Your task to perform on an android device: check android version Image 0: 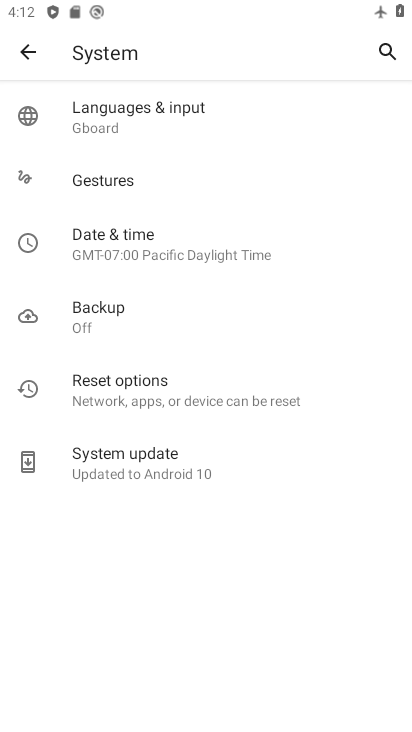
Step 0: press home button
Your task to perform on an android device: check android version Image 1: 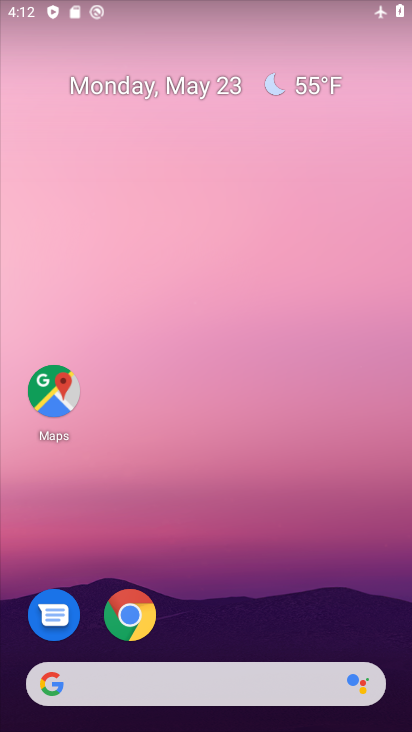
Step 1: drag from (383, 591) to (379, 220)
Your task to perform on an android device: check android version Image 2: 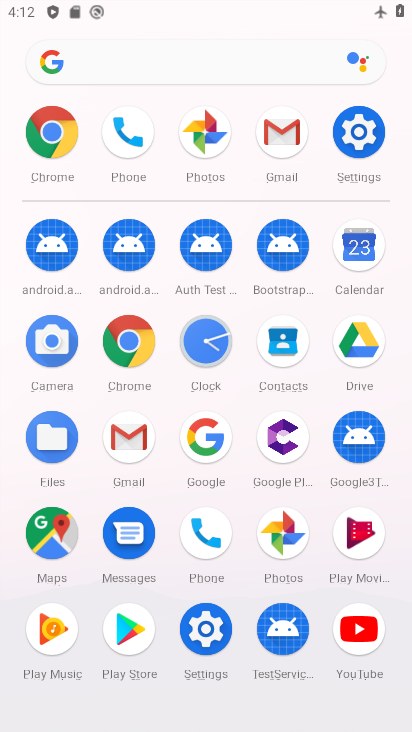
Step 2: click (210, 634)
Your task to perform on an android device: check android version Image 3: 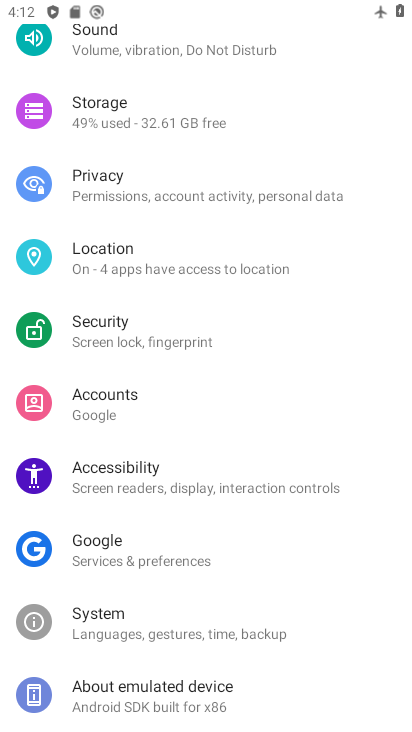
Step 3: drag from (356, 413) to (347, 495)
Your task to perform on an android device: check android version Image 4: 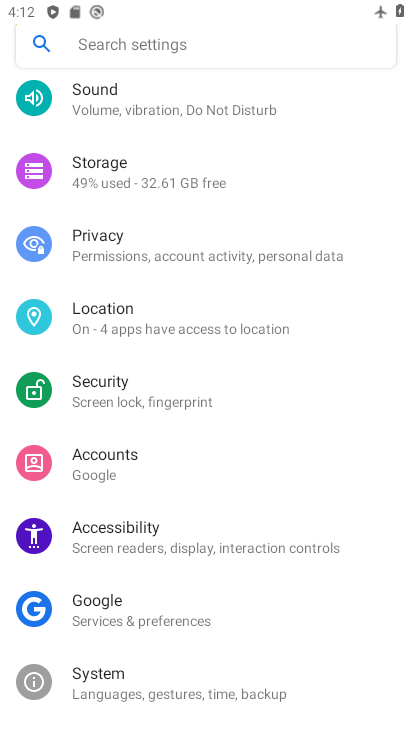
Step 4: drag from (364, 377) to (362, 490)
Your task to perform on an android device: check android version Image 5: 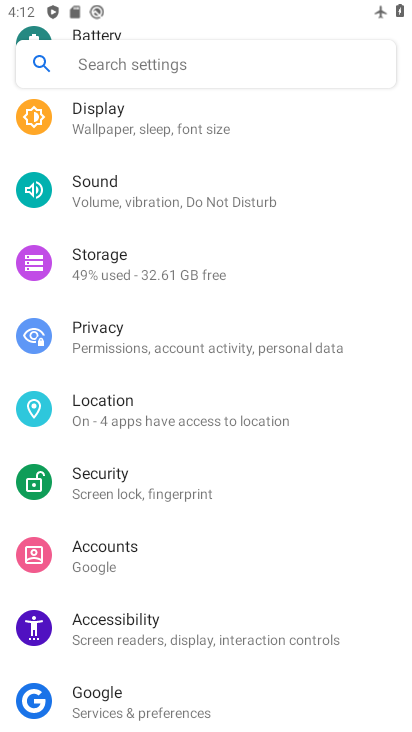
Step 5: drag from (323, 322) to (319, 417)
Your task to perform on an android device: check android version Image 6: 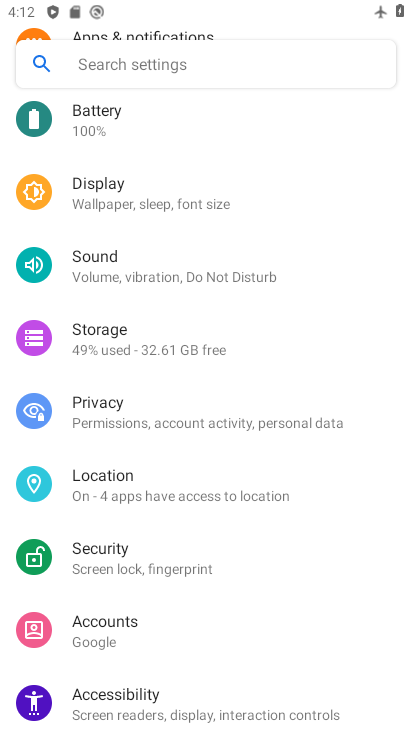
Step 6: drag from (331, 309) to (323, 424)
Your task to perform on an android device: check android version Image 7: 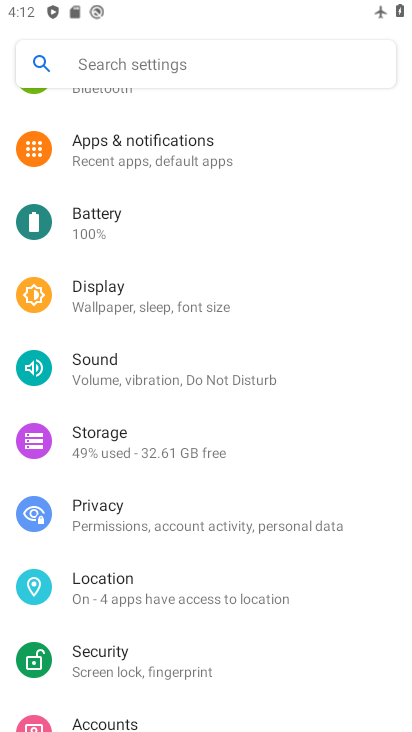
Step 7: drag from (326, 291) to (325, 398)
Your task to perform on an android device: check android version Image 8: 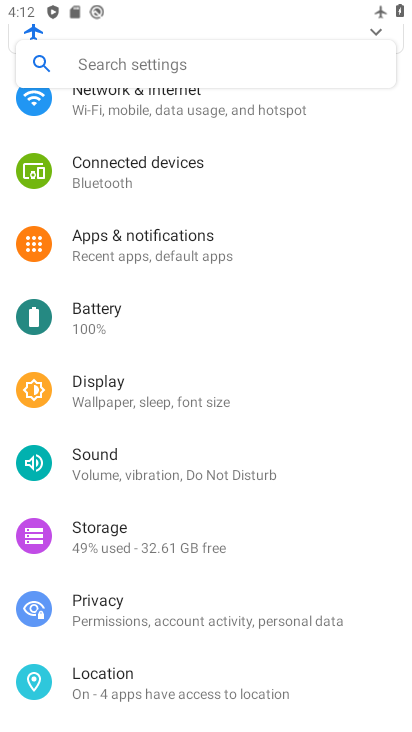
Step 8: drag from (341, 266) to (330, 391)
Your task to perform on an android device: check android version Image 9: 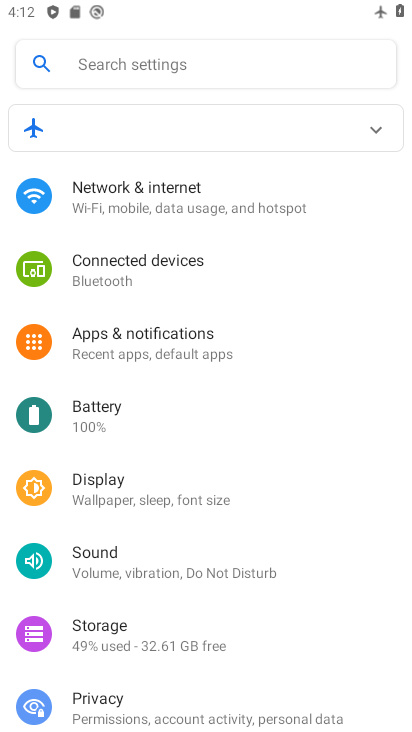
Step 9: drag from (333, 482) to (333, 409)
Your task to perform on an android device: check android version Image 10: 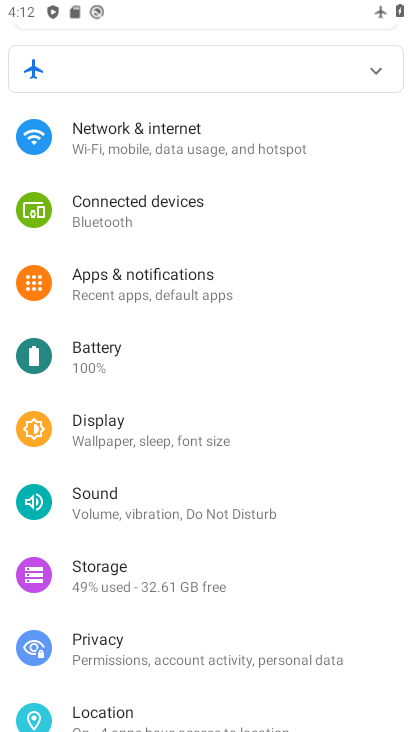
Step 10: drag from (350, 547) to (345, 460)
Your task to perform on an android device: check android version Image 11: 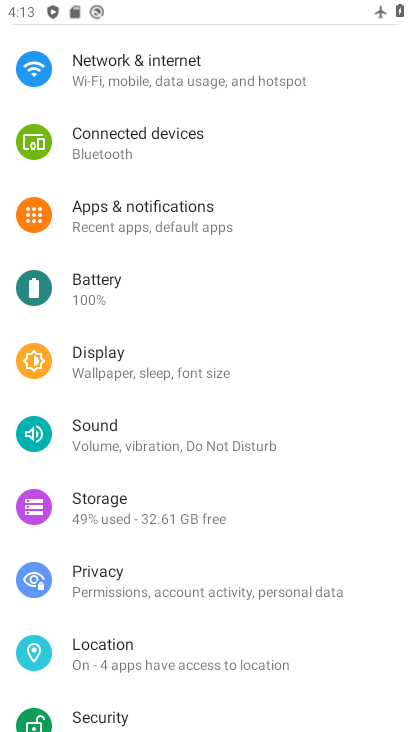
Step 11: drag from (341, 548) to (339, 460)
Your task to perform on an android device: check android version Image 12: 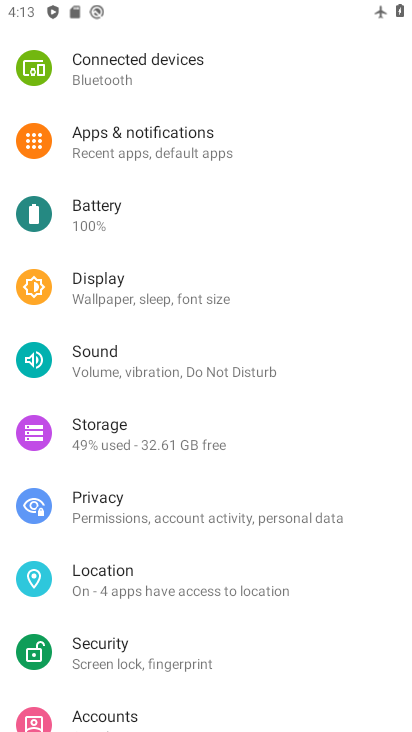
Step 12: drag from (354, 589) to (355, 472)
Your task to perform on an android device: check android version Image 13: 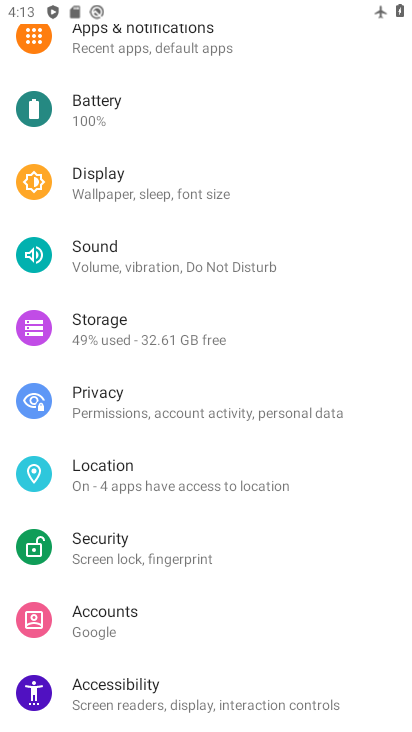
Step 13: drag from (331, 615) to (339, 489)
Your task to perform on an android device: check android version Image 14: 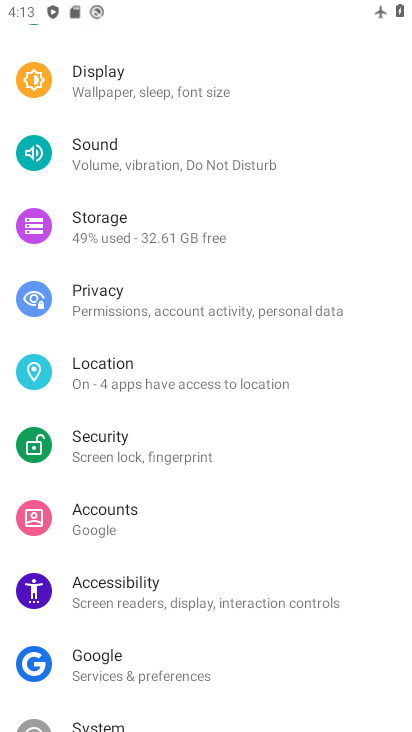
Step 14: drag from (315, 640) to (316, 540)
Your task to perform on an android device: check android version Image 15: 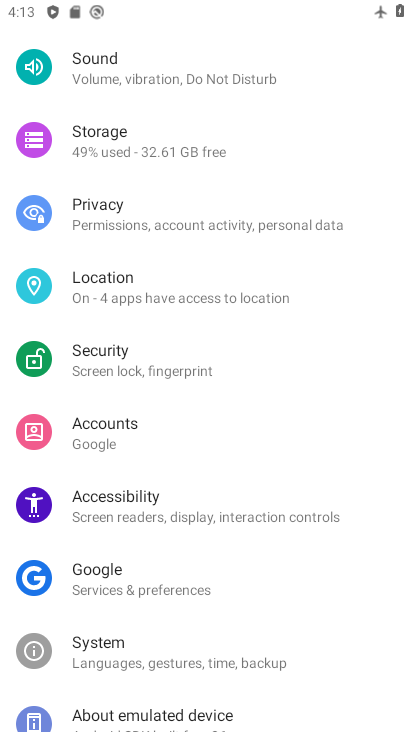
Step 15: click (264, 661)
Your task to perform on an android device: check android version Image 16: 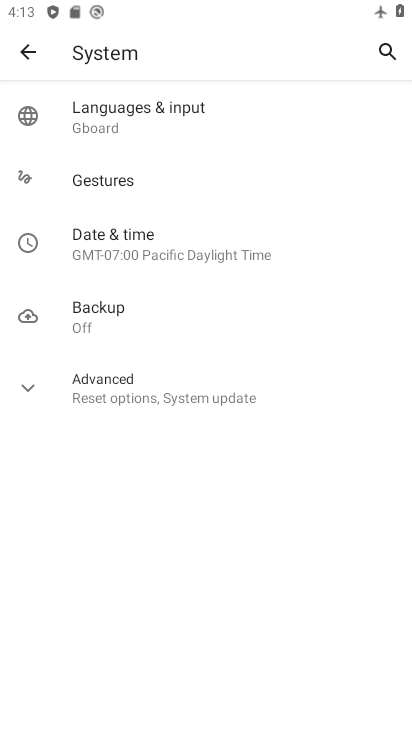
Step 16: click (234, 403)
Your task to perform on an android device: check android version Image 17: 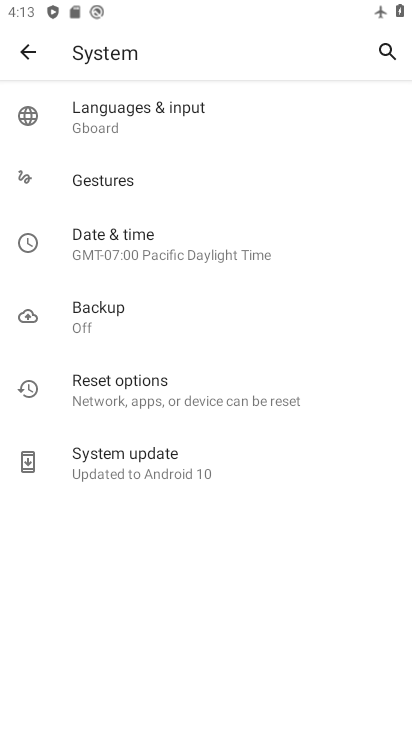
Step 17: task complete